Your task to perform on an android device: see creations saved in the google photos Image 0: 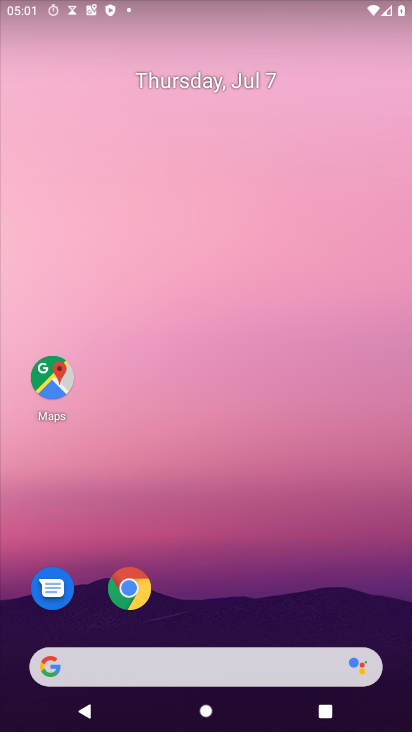
Step 0: press home button
Your task to perform on an android device: see creations saved in the google photos Image 1: 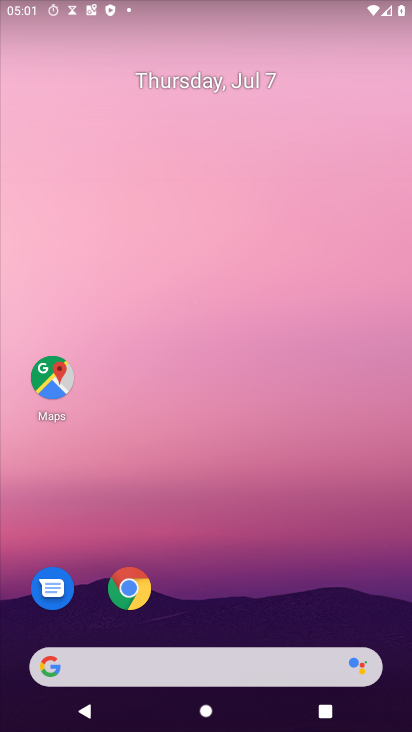
Step 1: drag from (225, 572) to (211, 156)
Your task to perform on an android device: see creations saved in the google photos Image 2: 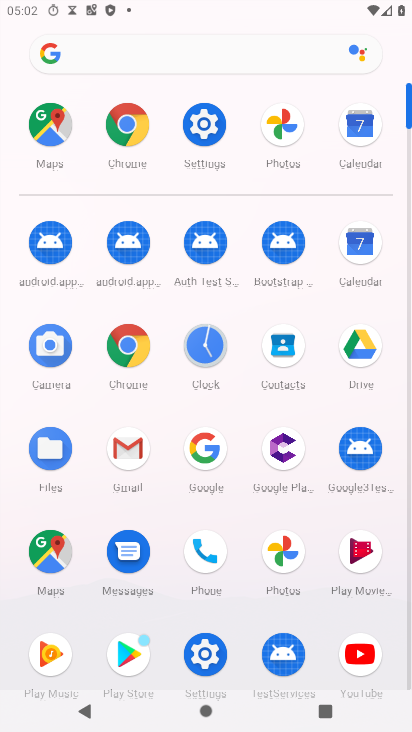
Step 2: click (280, 131)
Your task to perform on an android device: see creations saved in the google photos Image 3: 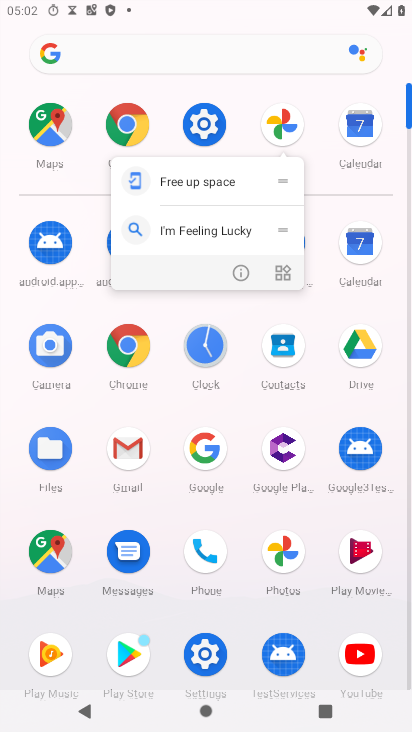
Step 3: click (288, 123)
Your task to perform on an android device: see creations saved in the google photos Image 4: 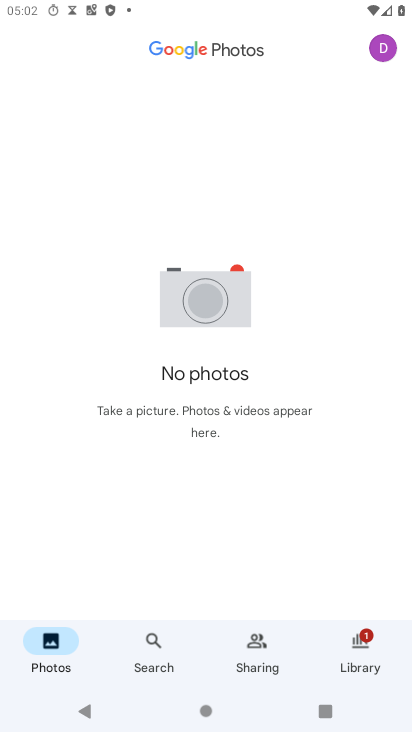
Step 4: click (151, 638)
Your task to perform on an android device: see creations saved in the google photos Image 5: 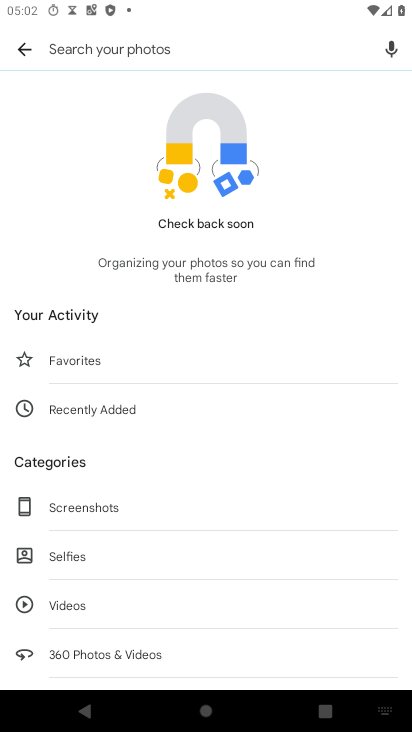
Step 5: drag from (339, 483) to (367, 127)
Your task to perform on an android device: see creations saved in the google photos Image 6: 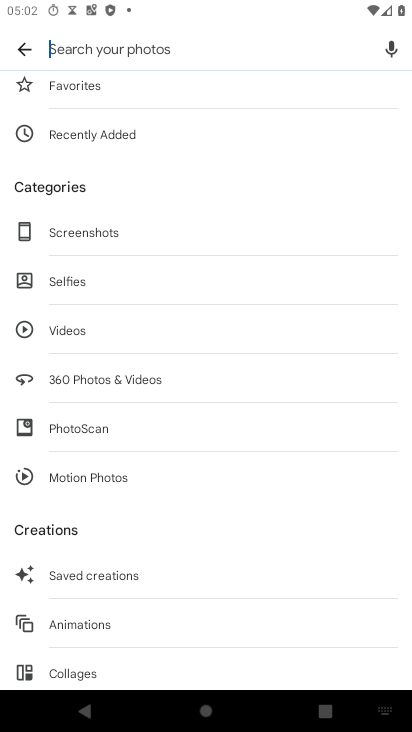
Step 6: drag from (281, 627) to (287, 324)
Your task to perform on an android device: see creations saved in the google photos Image 7: 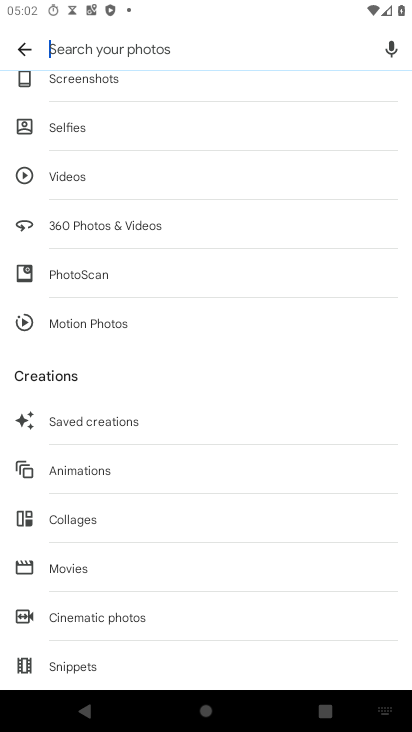
Step 7: click (97, 422)
Your task to perform on an android device: see creations saved in the google photos Image 8: 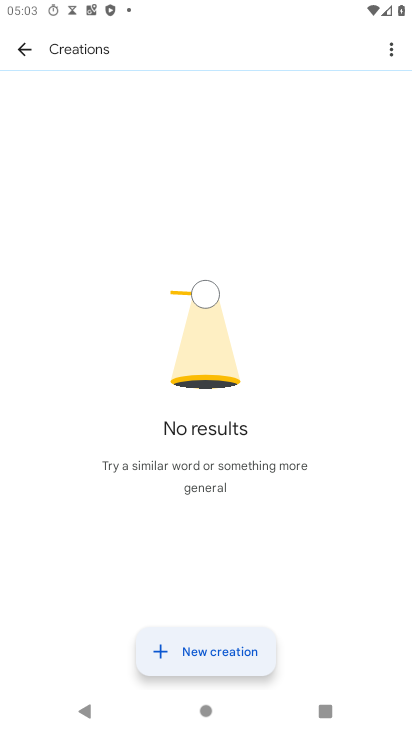
Step 8: task complete